Your task to perform on an android device: Open Google Chrome and open the bookmarks view Image 0: 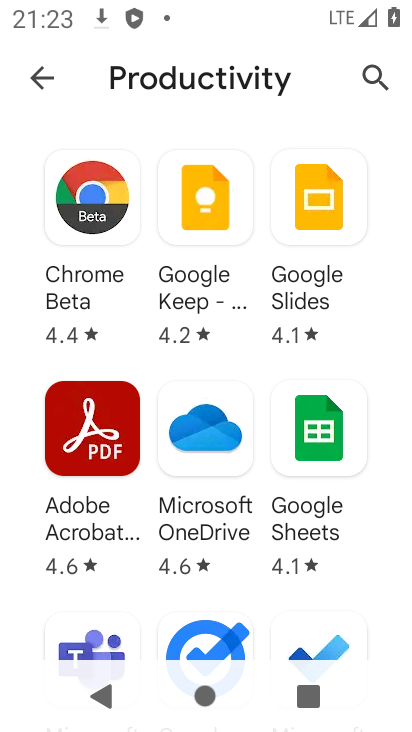
Step 0: press back button
Your task to perform on an android device: Open Google Chrome and open the bookmarks view Image 1: 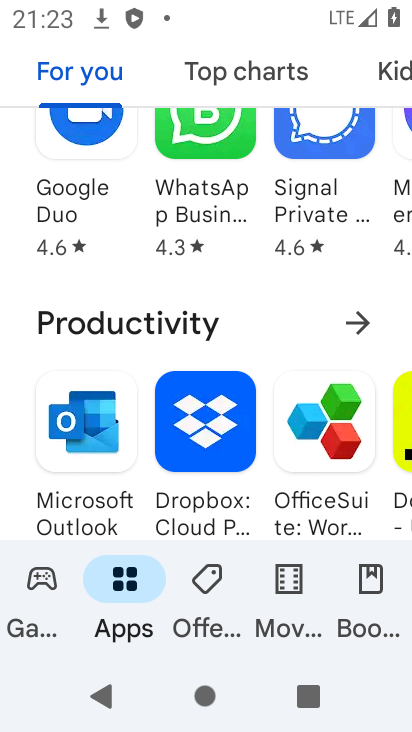
Step 1: press back button
Your task to perform on an android device: Open Google Chrome and open the bookmarks view Image 2: 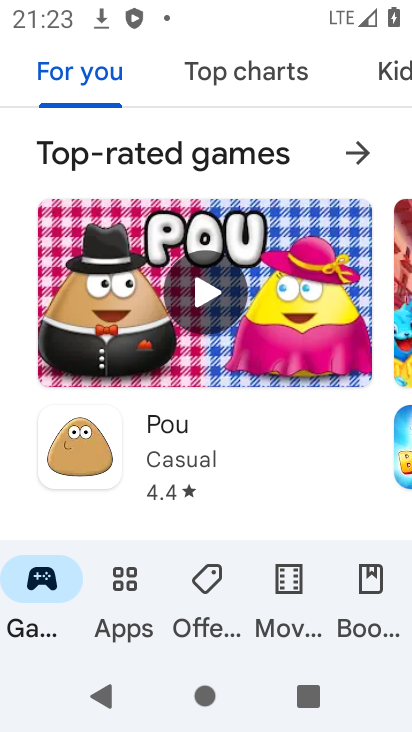
Step 2: press back button
Your task to perform on an android device: Open Google Chrome and open the bookmarks view Image 3: 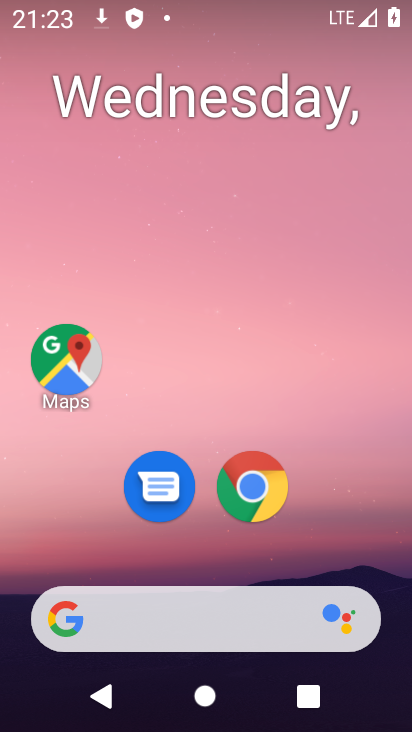
Step 3: click (251, 489)
Your task to perform on an android device: Open Google Chrome and open the bookmarks view Image 4: 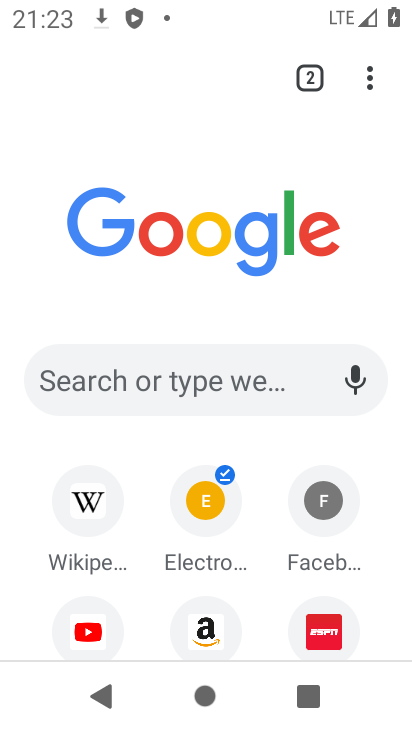
Step 4: task complete